Your task to perform on an android device: What's on my calendar tomorrow? Image 0: 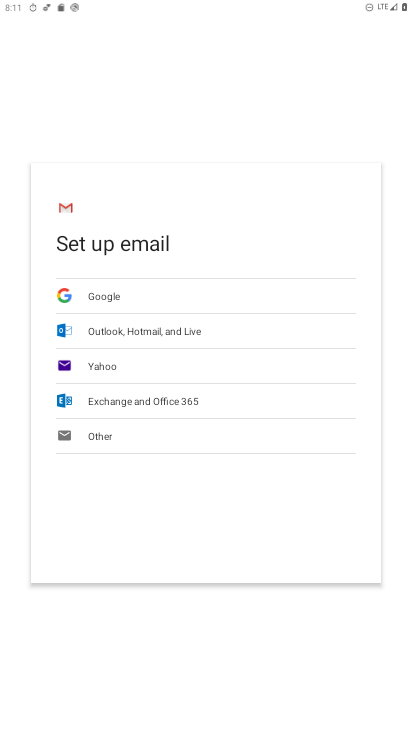
Step 0: drag from (194, 664) to (216, 295)
Your task to perform on an android device: What's on my calendar tomorrow? Image 1: 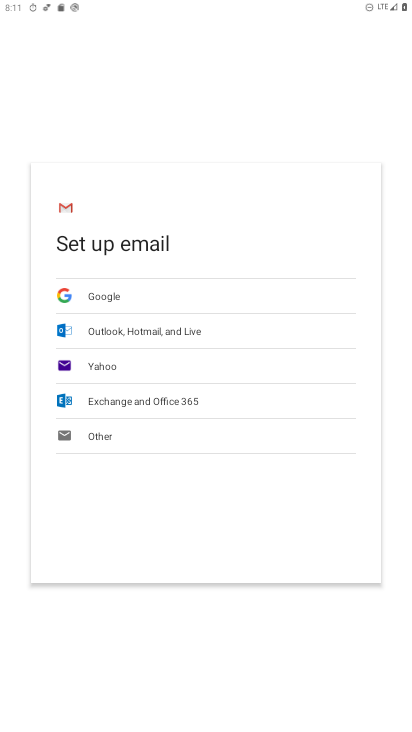
Step 1: press home button
Your task to perform on an android device: What's on my calendar tomorrow? Image 2: 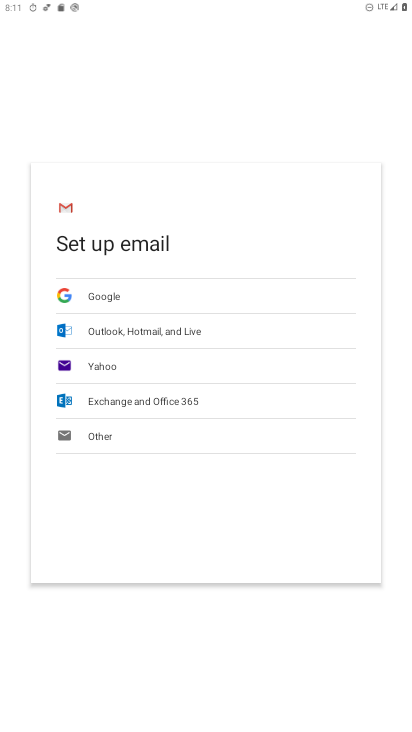
Step 2: press home button
Your task to perform on an android device: What's on my calendar tomorrow? Image 3: 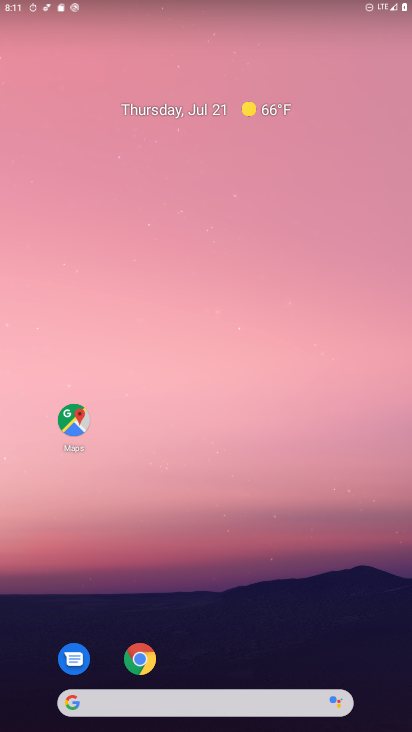
Step 3: drag from (205, 609) to (254, 127)
Your task to perform on an android device: What's on my calendar tomorrow? Image 4: 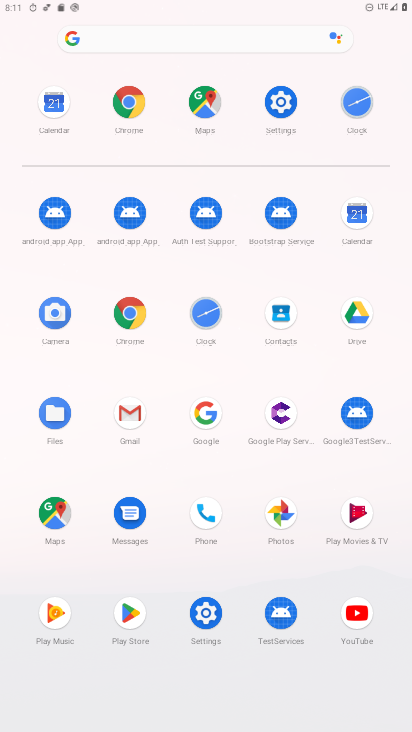
Step 4: click (356, 212)
Your task to perform on an android device: What's on my calendar tomorrow? Image 5: 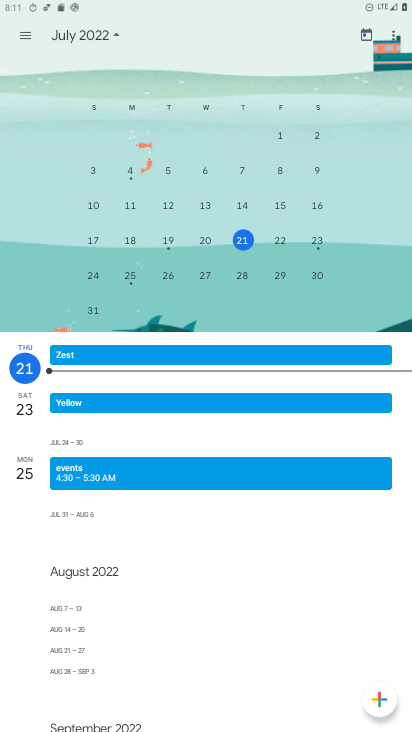
Step 5: drag from (227, 571) to (250, 623)
Your task to perform on an android device: What's on my calendar tomorrow? Image 6: 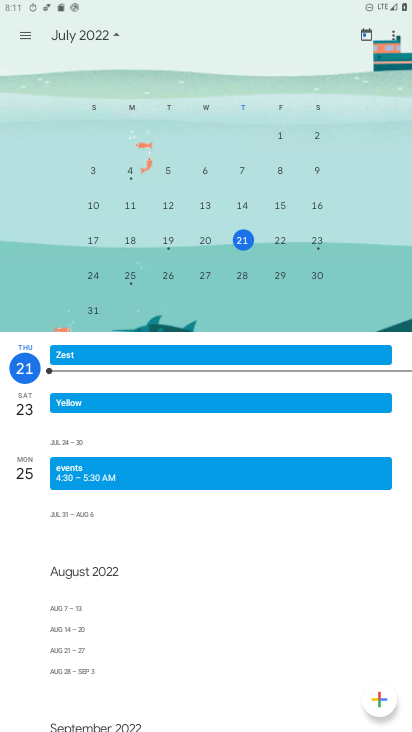
Step 6: click (279, 242)
Your task to perform on an android device: What's on my calendar tomorrow? Image 7: 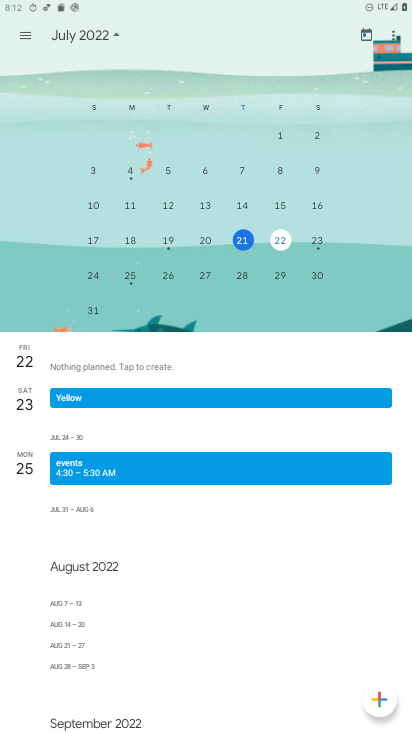
Step 7: click (277, 240)
Your task to perform on an android device: What's on my calendar tomorrow? Image 8: 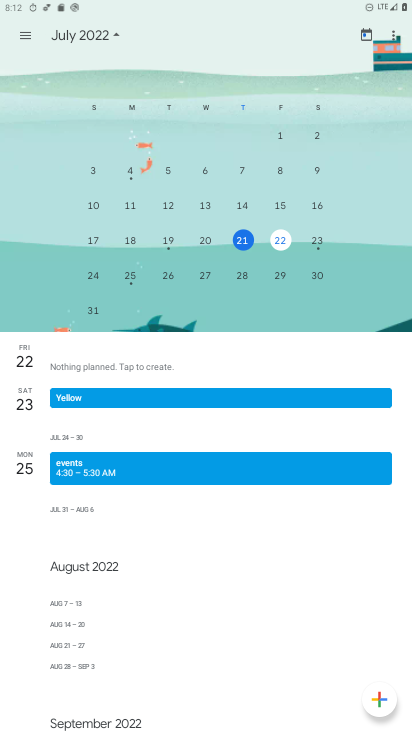
Step 8: task complete